Your task to perform on an android device: open device folders in google photos Image 0: 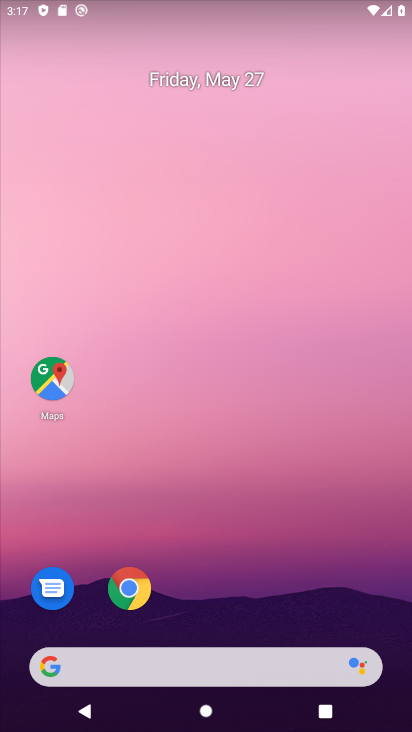
Step 0: drag from (212, 643) to (175, 104)
Your task to perform on an android device: open device folders in google photos Image 1: 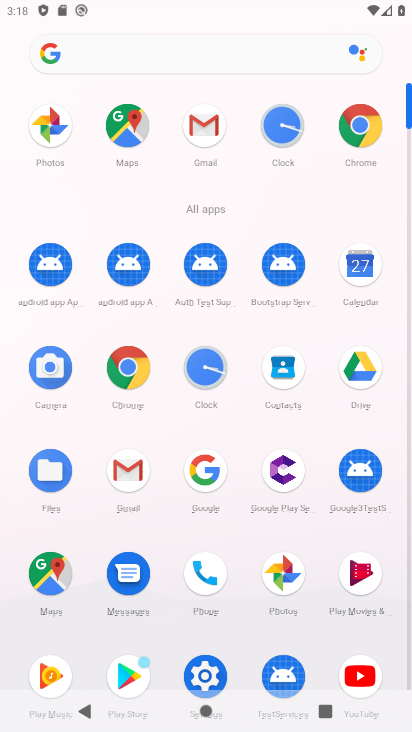
Step 1: click (280, 558)
Your task to perform on an android device: open device folders in google photos Image 2: 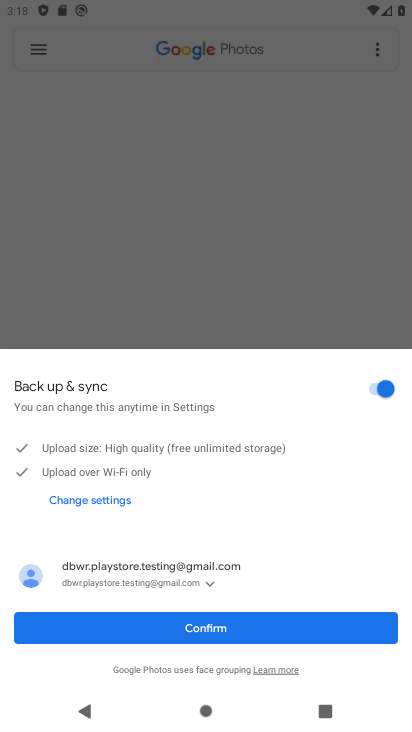
Step 2: click (259, 612)
Your task to perform on an android device: open device folders in google photos Image 3: 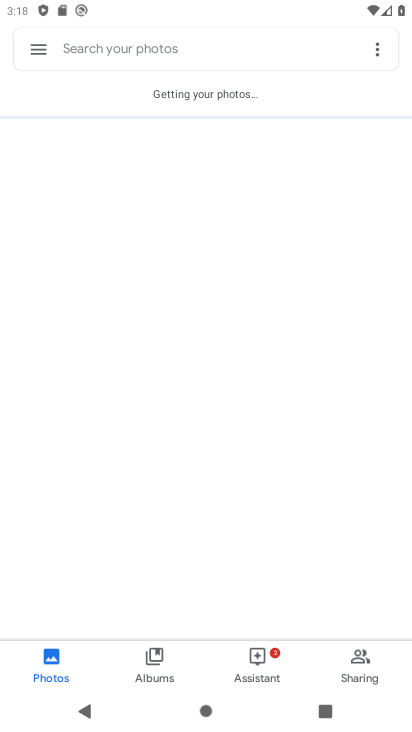
Step 3: click (30, 59)
Your task to perform on an android device: open device folders in google photos Image 4: 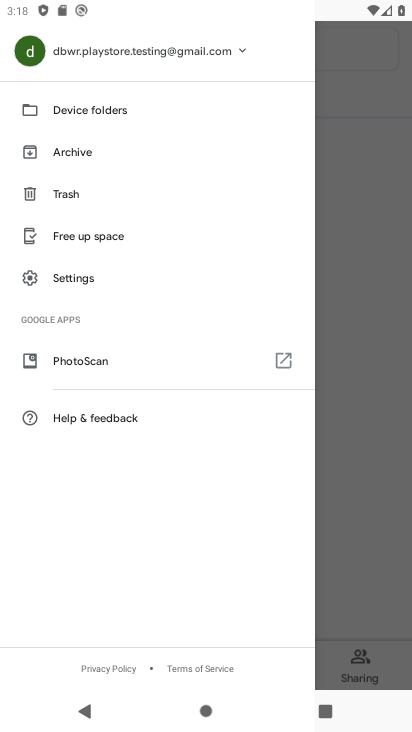
Step 4: click (95, 113)
Your task to perform on an android device: open device folders in google photos Image 5: 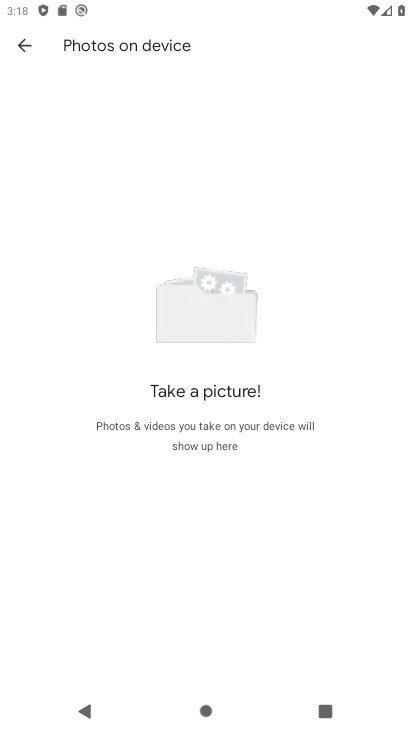
Step 5: task complete